Your task to perform on an android device: toggle pop-ups in chrome Image 0: 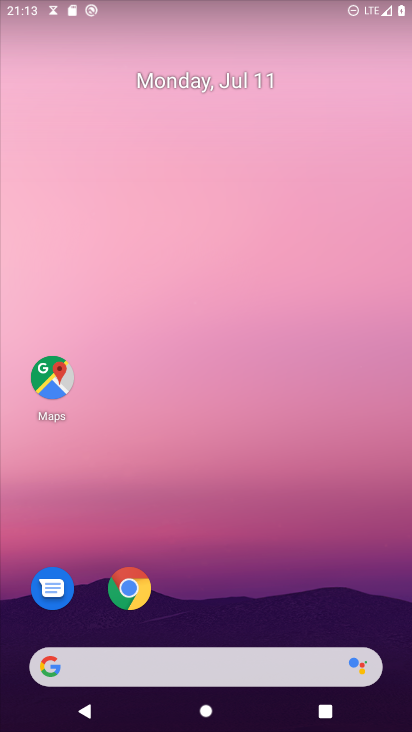
Step 0: drag from (240, 616) to (185, 121)
Your task to perform on an android device: toggle pop-ups in chrome Image 1: 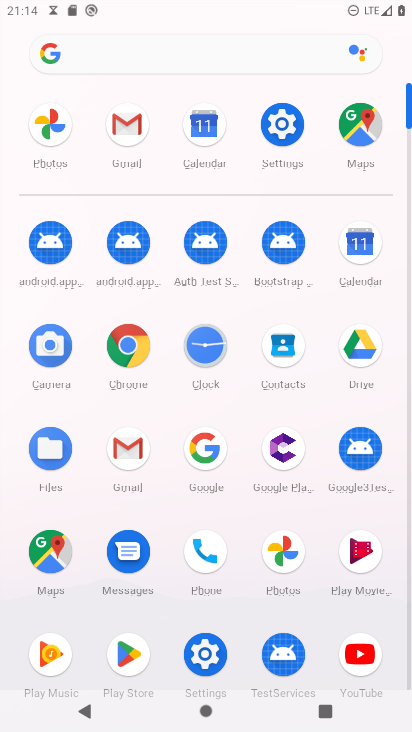
Step 1: click (127, 347)
Your task to perform on an android device: toggle pop-ups in chrome Image 2: 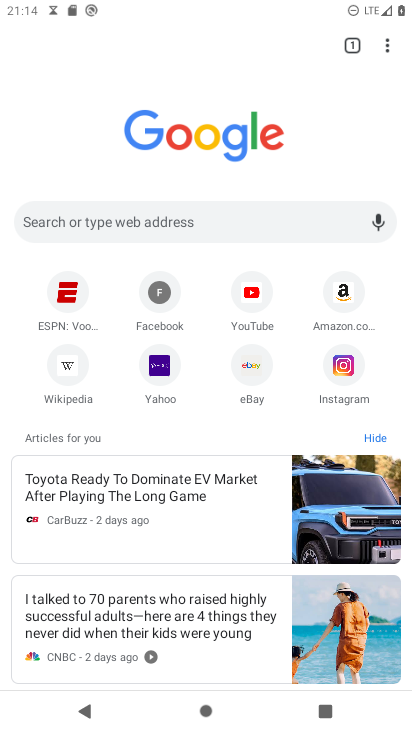
Step 2: drag from (391, 44) to (210, 389)
Your task to perform on an android device: toggle pop-ups in chrome Image 3: 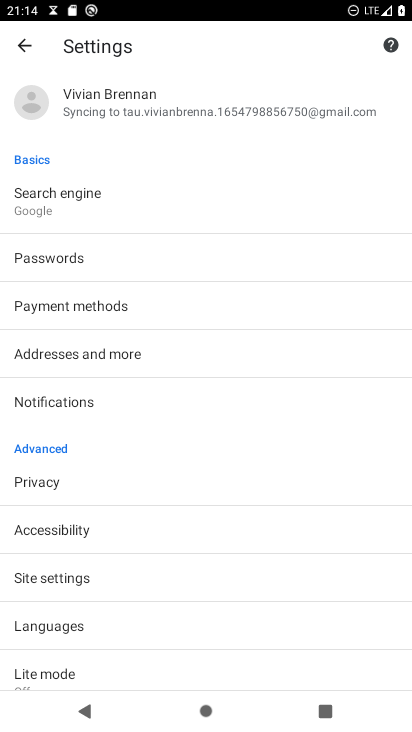
Step 3: click (48, 577)
Your task to perform on an android device: toggle pop-ups in chrome Image 4: 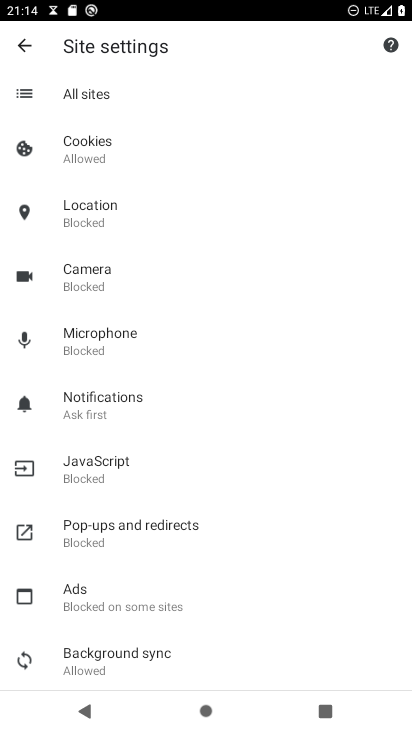
Step 4: click (93, 539)
Your task to perform on an android device: toggle pop-ups in chrome Image 5: 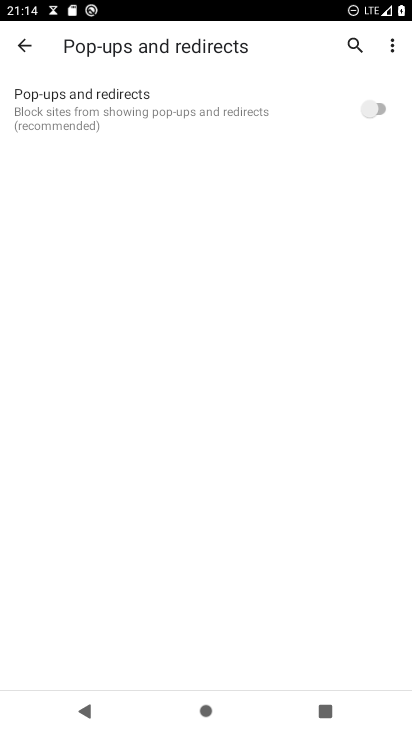
Step 5: click (380, 105)
Your task to perform on an android device: toggle pop-ups in chrome Image 6: 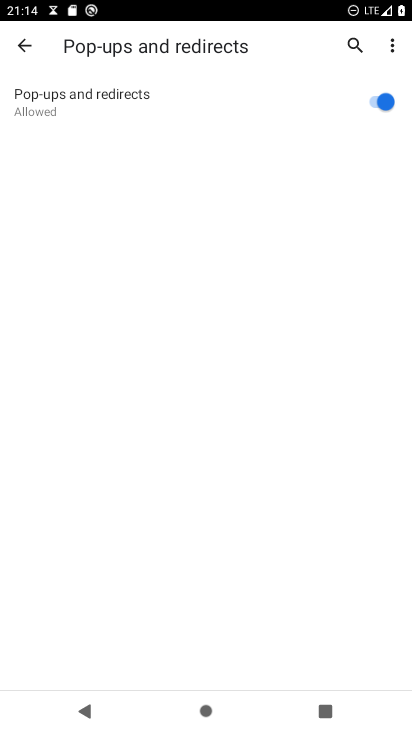
Step 6: task complete